Your task to perform on an android device: turn off priority inbox in the gmail app Image 0: 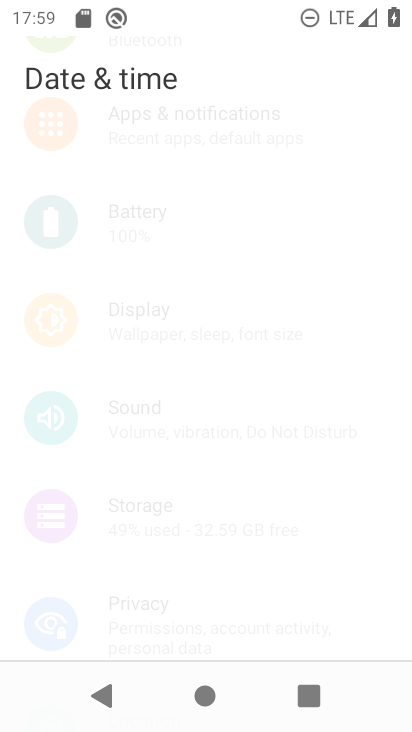
Step 0: click (218, 595)
Your task to perform on an android device: turn off priority inbox in the gmail app Image 1: 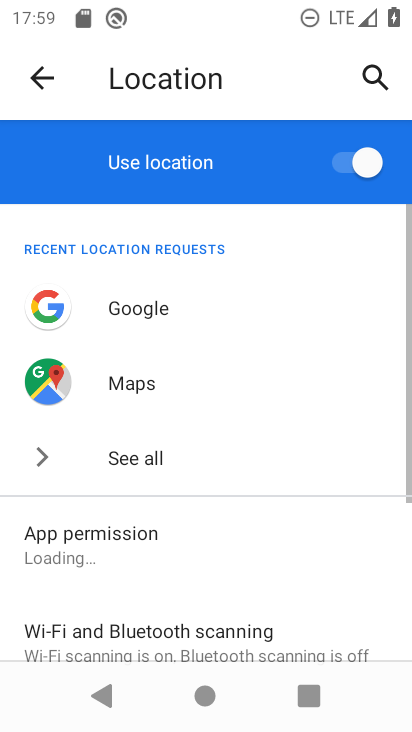
Step 1: press home button
Your task to perform on an android device: turn off priority inbox in the gmail app Image 2: 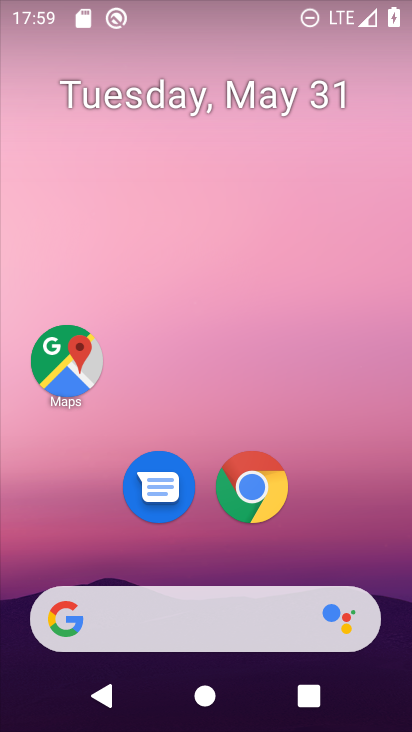
Step 2: drag from (336, 538) to (198, 95)
Your task to perform on an android device: turn off priority inbox in the gmail app Image 3: 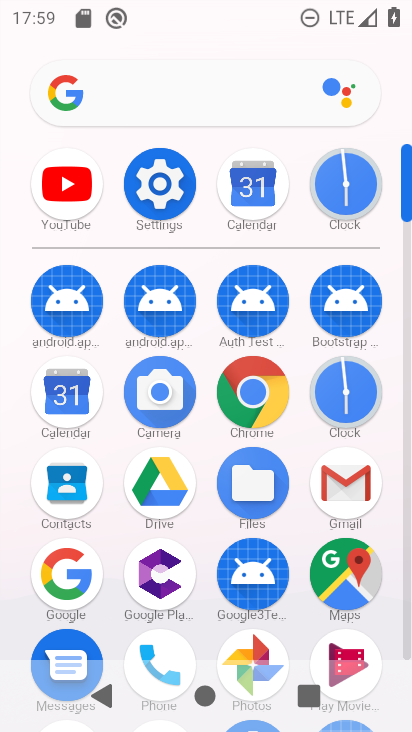
Step 3: click (339, 477)
Your task to perform on an android device: turn off priority inbox in the gmail app Image 4: 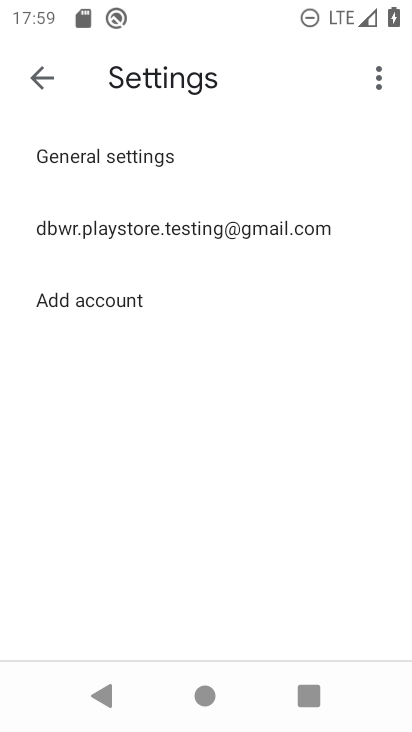
Step 4: click (107, 230)
Your task to perform on an android device: turn off priority inbox in the gmail app Image 5: 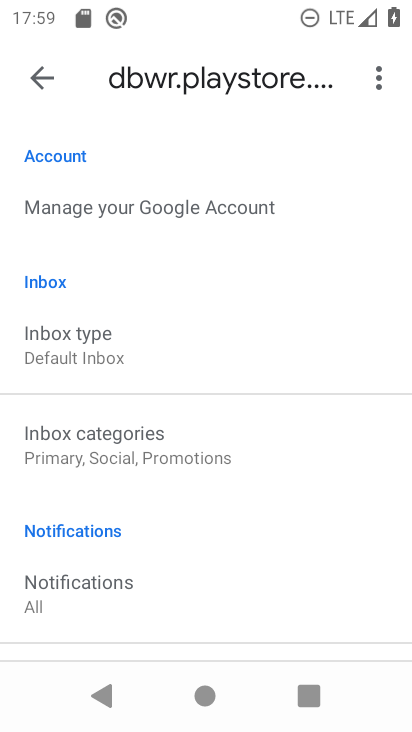
Step 5: click (62, 334)
Your task to perform on an android device: turn off priority inbox in the gmail app Image 6: 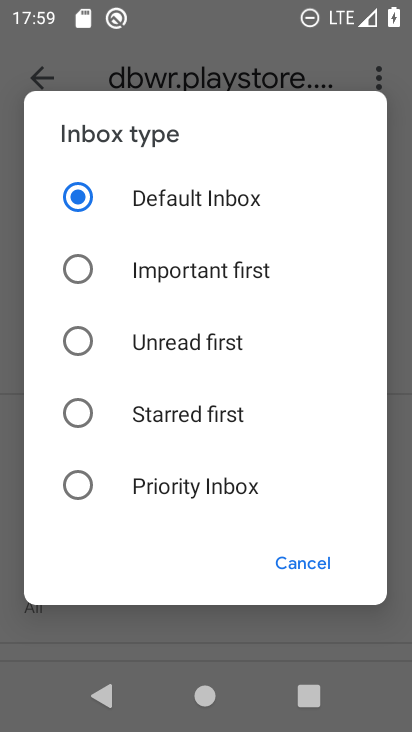
Step 6: task complete